Your task to perform on an android device: Search for pizza restaurants on Maps Image 0: 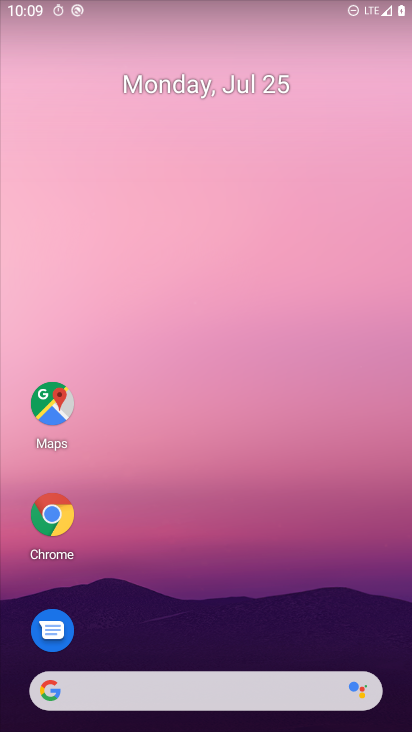
Step 0: click (63, 391)
Your task to perform on an android device: Search for pizza restaurants on Maps Image 1: 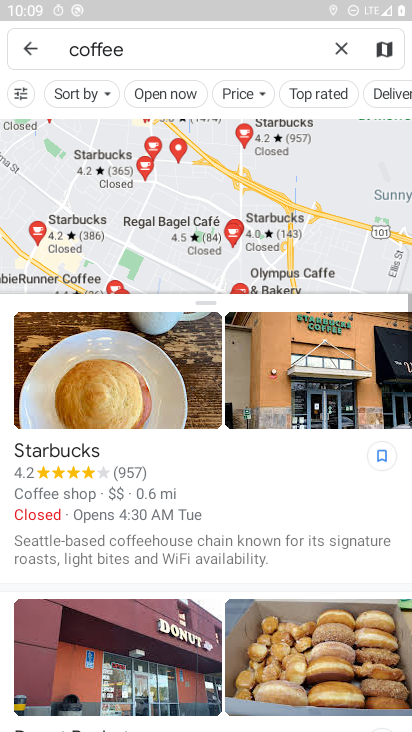
Step 1: click (332, 48)
Your task to perform on an android device: Search for pizza restaurants on Maps Image 2: 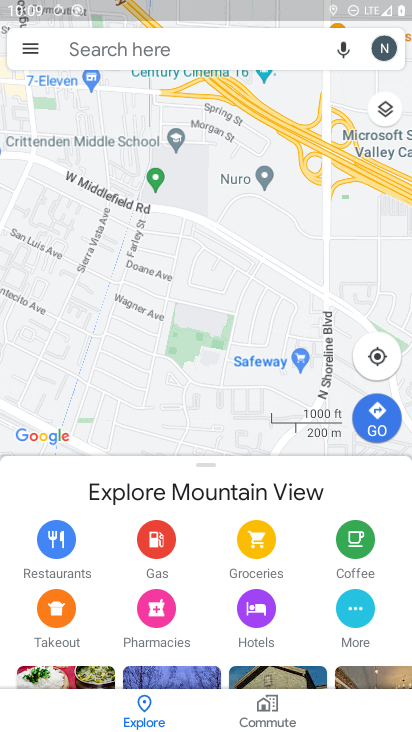
Step 2: click (88, 48)
Your task to perform on an android device: Search for pizza restaurants on Maps Image 3: 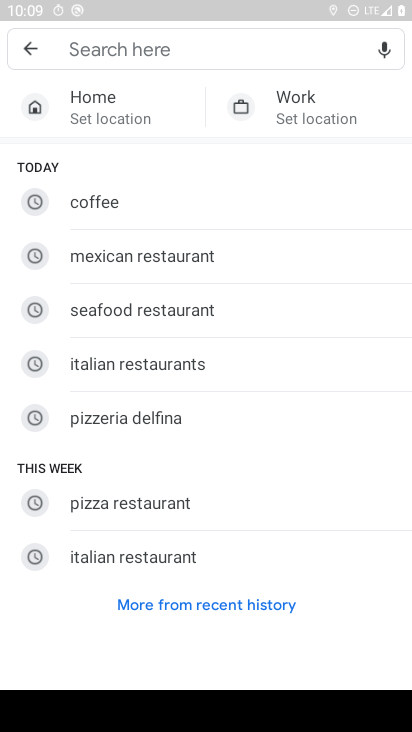
Step 3: type "pizza restaurants"
Your task to perform on an android device: Search for pizza restaurants on Maps Image 4: 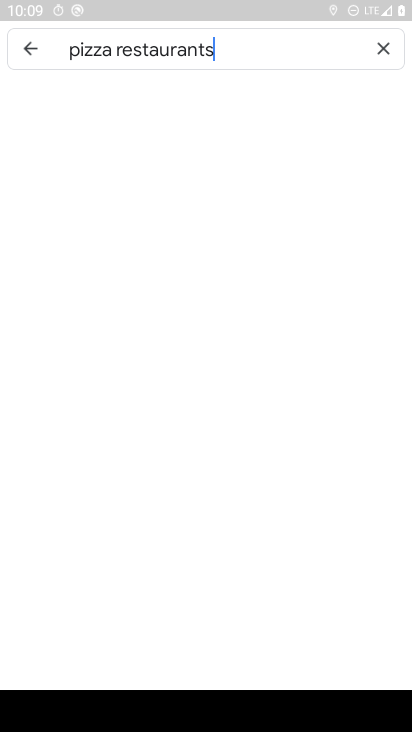
Step 4: type ""
Your task to perform on an android device: Search for pizza restaurants on Maps Image 5: 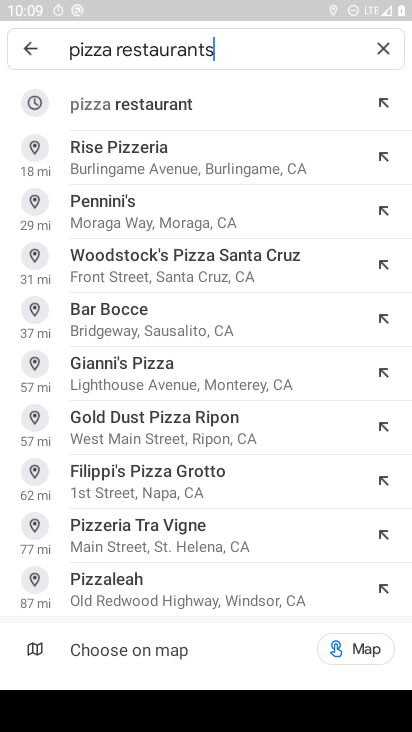
Step 5: type ""
Your task to perform on an android device: Search for pizza restaurants on Maps Image 6: 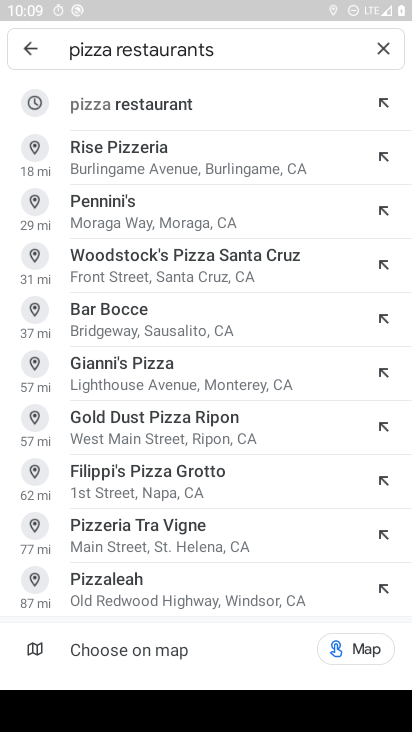
Step 6: task complete